Your task to perform on an android device: make emails show in primary in the gmail app Image 0: 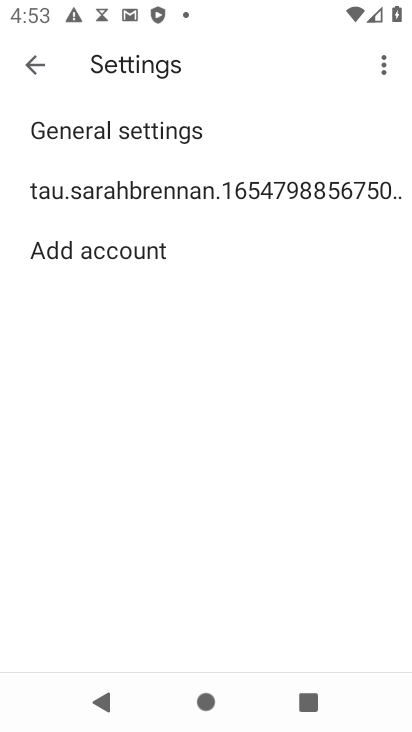
Step 0: click (83, 188)
Your task to perform on an android device: make emails show in primary in the gmail app Image 1: 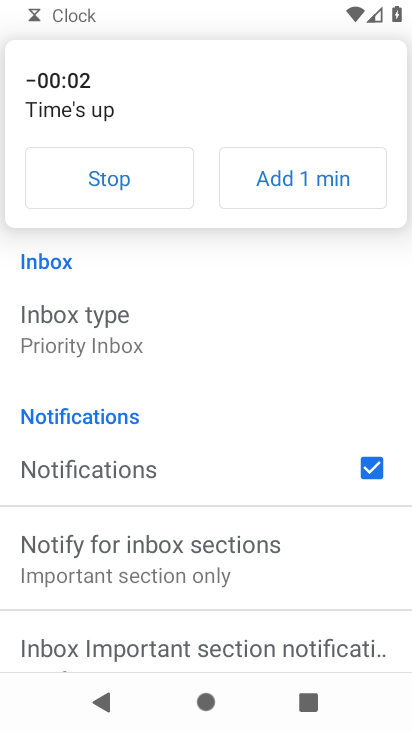
Step 1: click (109, 176)
Your task to perform on an android device: make emails show in primary in the gmail app Image 2: 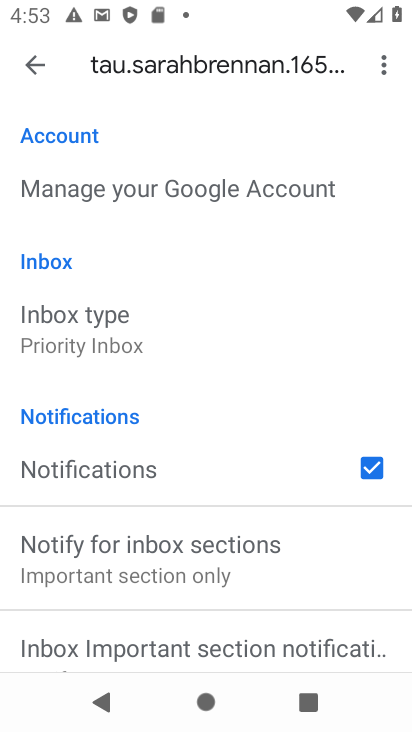
Step 2: click (59, 326)
Your task to perform on an android device: make emails show in primary in the gmail app Image 3: 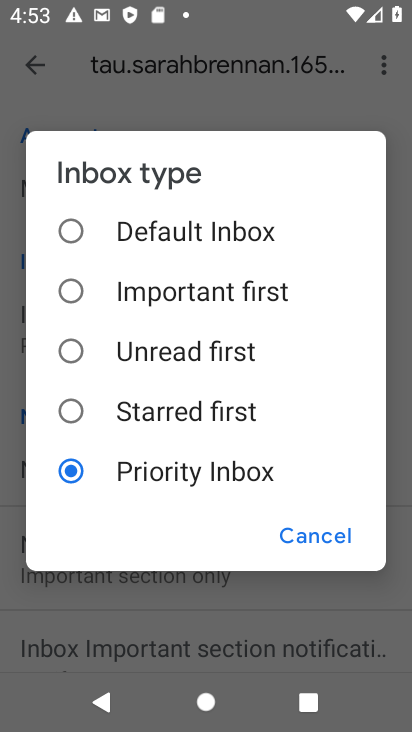
Step 3: click (122, 243)
Your task to perform on an android device: make emails show in primary in the gmail app Image 4: 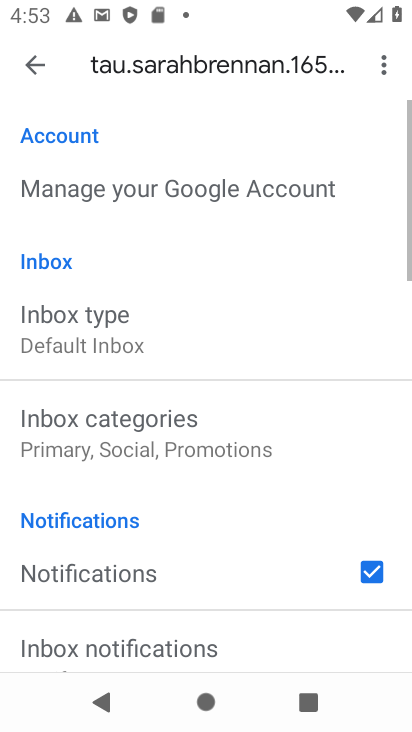
Step 4: click (107, 430)
Your task to perform on an android device: make emails show in primary in the gmail app Image 5: 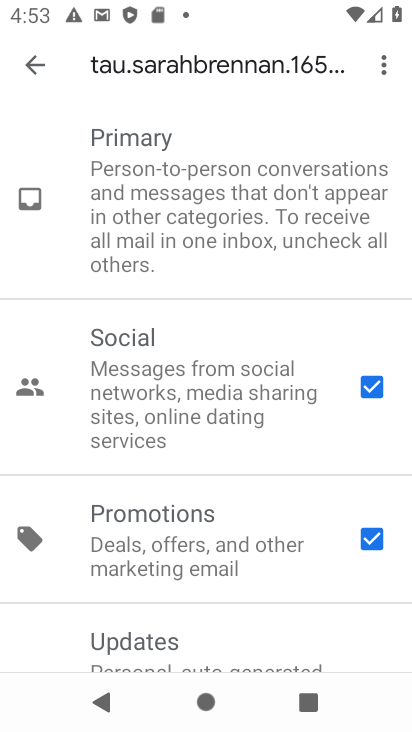
Step 5: click (376, 541)
Your task to perform on an android device: make emails show in primary in the gmail app Image 6: 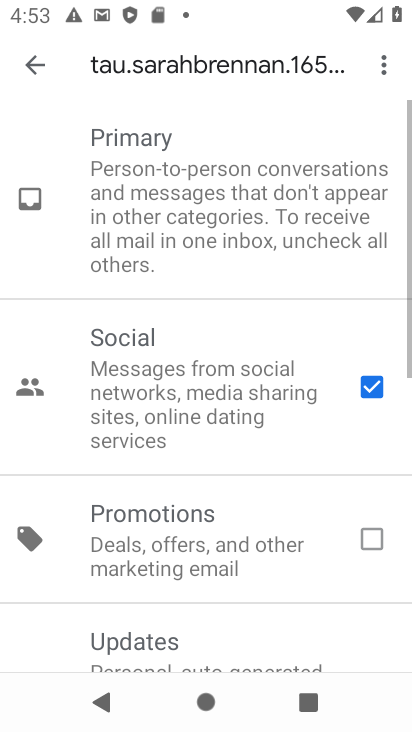
Step 6: click (369, 391)
Your task to perform on an android device: make emails show in primary in the gmail app Image 7: 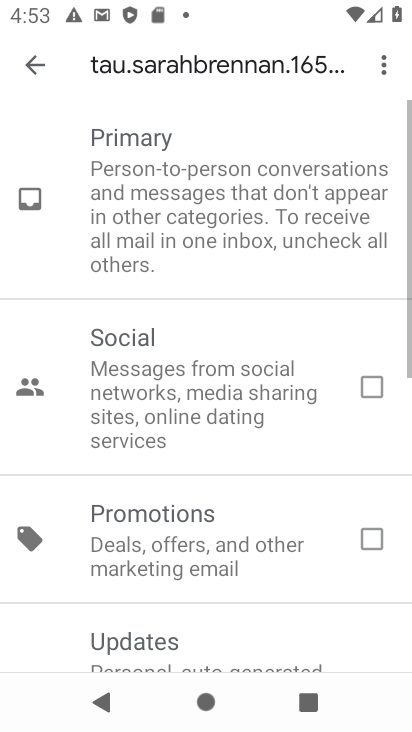
Step 7: click (37, 68)
Your task to perform on an android device: make emails show in primary in the gmail app Image 8: 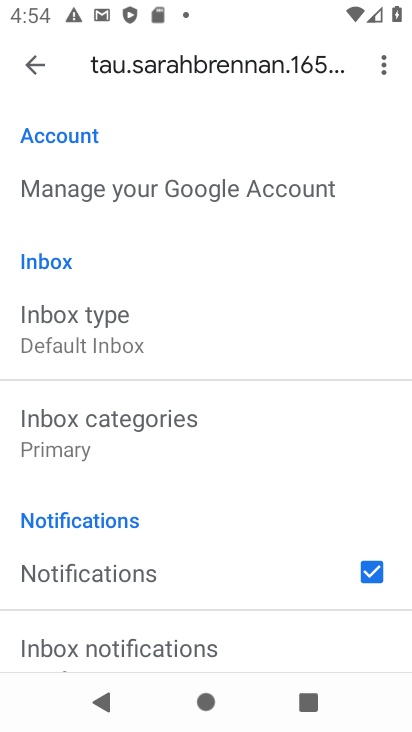
Step 8: task complete